Your task to perform on an android device: find photos in the google photos app Image 0: 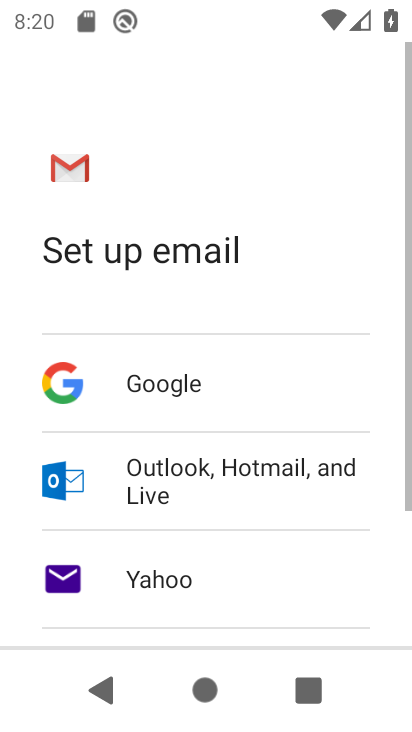
Step 0: press home button
Your task to perform on an android device: find photos in the google photos app Image 1: 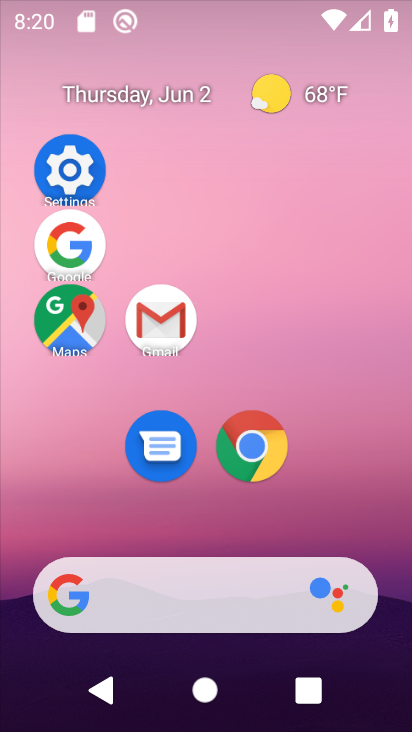
Step 1: drag from (310, 485) to (337, 16)
Your task to perform on an android device: find photos in the google photos app Image 2: 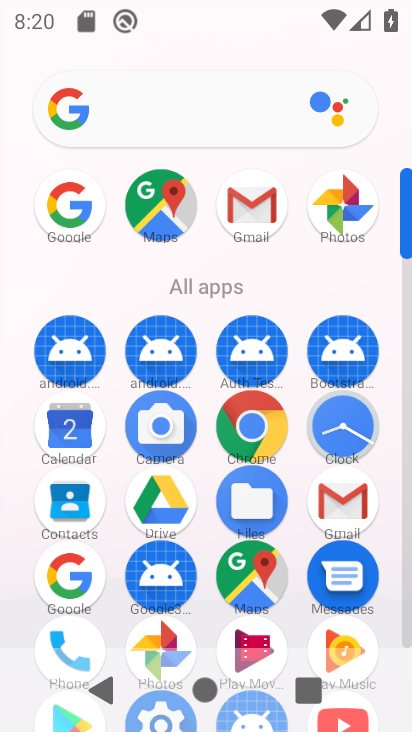
Step 2: drag from (343, 249) to (324, 387)
Your task to perform on an android device: find photos in the google photos app Image 3: 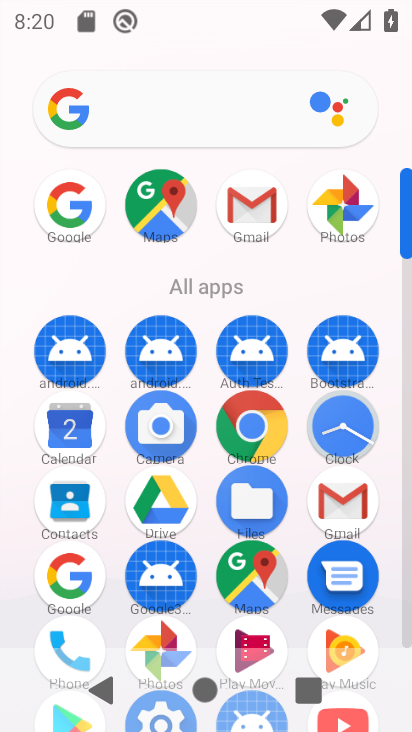
Step 3: drag from (339, 198) to (236, 270)
Your task to perform on an android device: find photos in the google photos app Image 4: 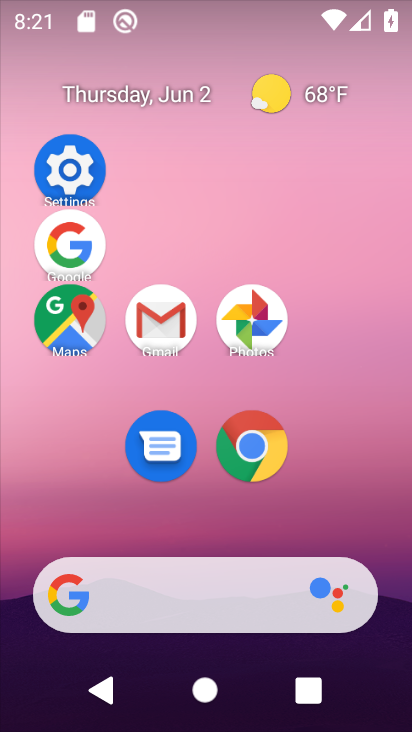
Step 4: click (268, 331)
Your task to perform on an android device: find photos in the google photos app Image 5: 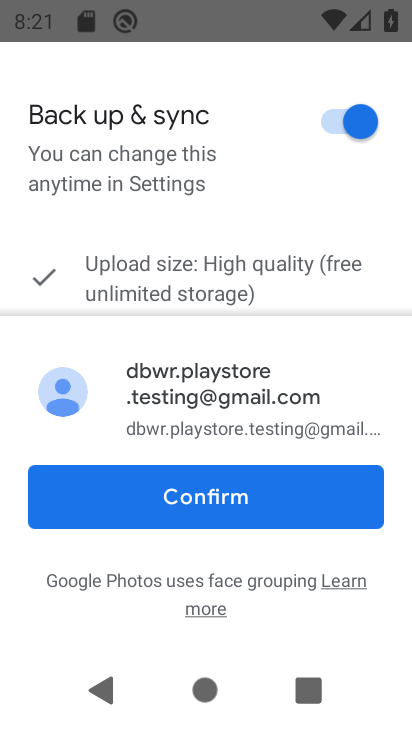
Step 5: click (259, 504)
Your task to perform on an android device: find photos in the google photos app Image 6: 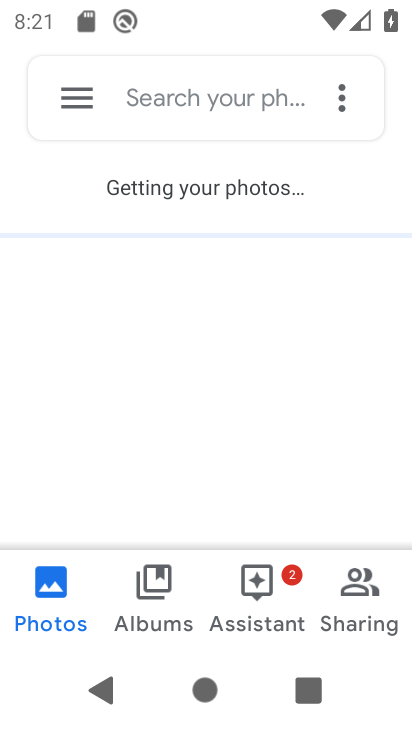
Step 6: task complete